Your task to perform on an android device: Open Google Maps Image 0: 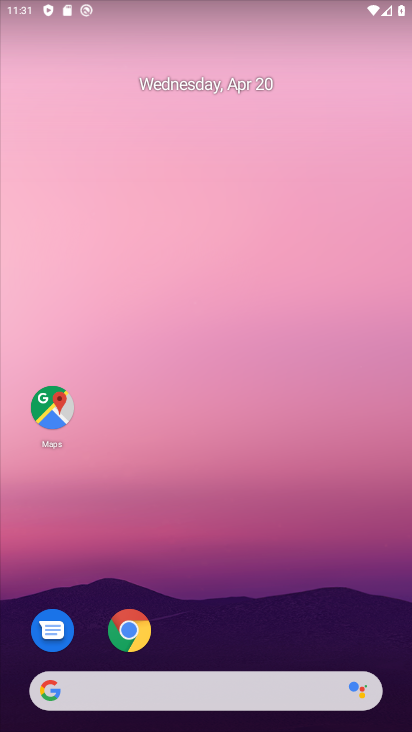
Step 0: drag from (198, 625) to (291, 57)
Your task to perform on an android device: Open Google Maps Image 1: 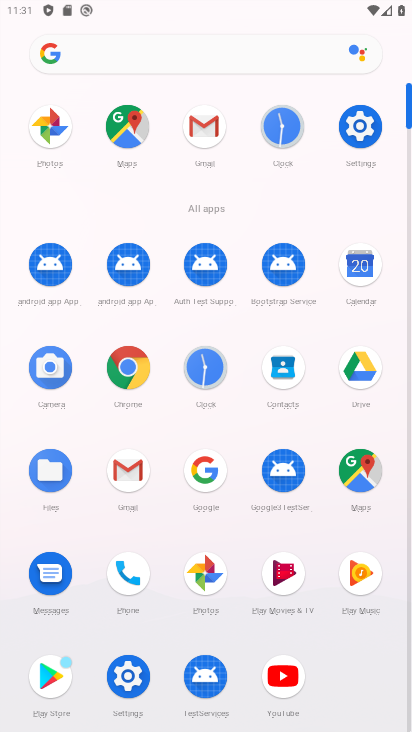
Step 1: drag from (244, 541) to (318, 177)
Your task to perform on an android device: Open Google Maps Image 2: 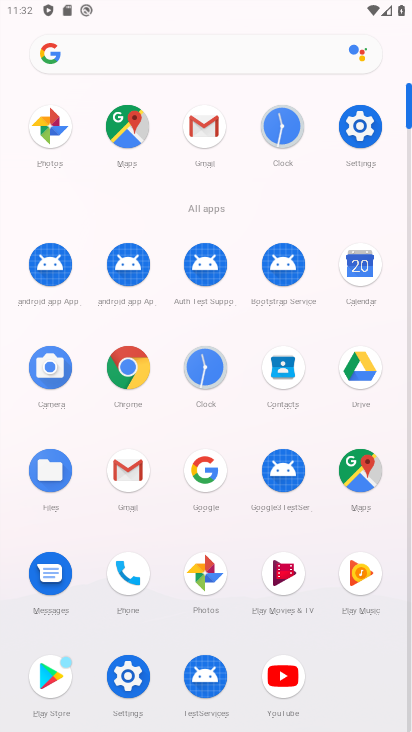
Step 2: click (354, 464)
Your task to perform on an android device: Open Google Maps Image 3: 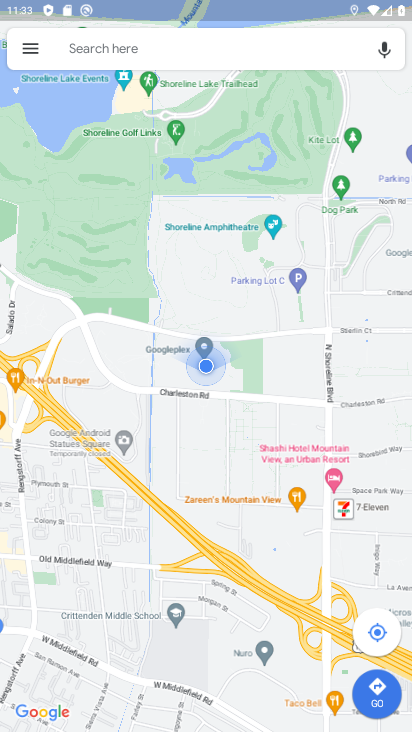
Step 3: task complete